Your task to perform on an android device: Open calendar and show me the third week of next month Image 0: 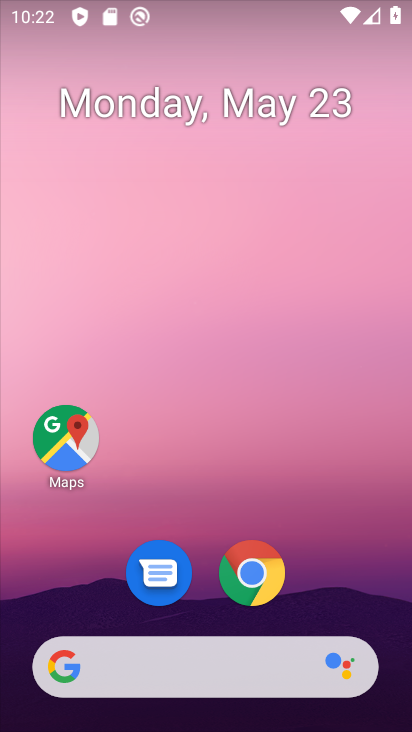
Step 0: drag from (342, 535) to (253, 47)
Your task to perform on an android device: Open calendar and show me the third week of next month Image 1: 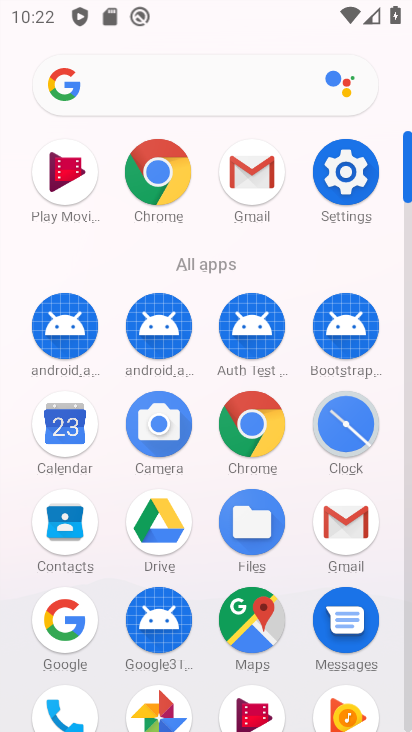
Step 1: drag from (13, 468) to (20, 226)
Your task to perform on an android device: Open calendar and show me the third week of next month Image 2: 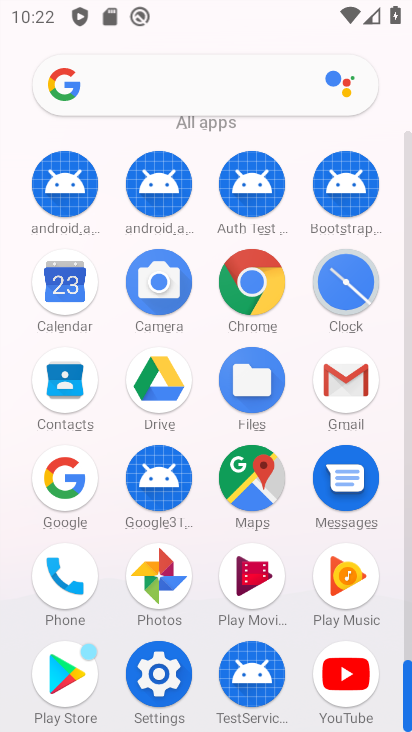
Step 2: drag from (17, 528) to (27, 206)
Your task to perform on an android device: Open calendar and show me the third week of next month Image 3: 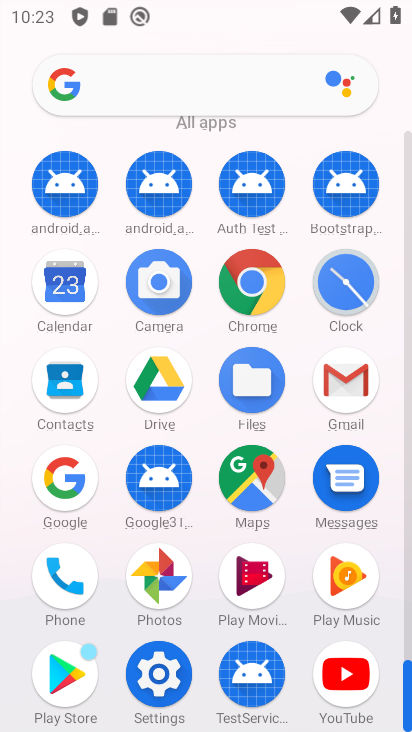
Step 3: click (65, 275)
Your task to perform on an android device: Open calendar and show me the third week of next month Image 4: 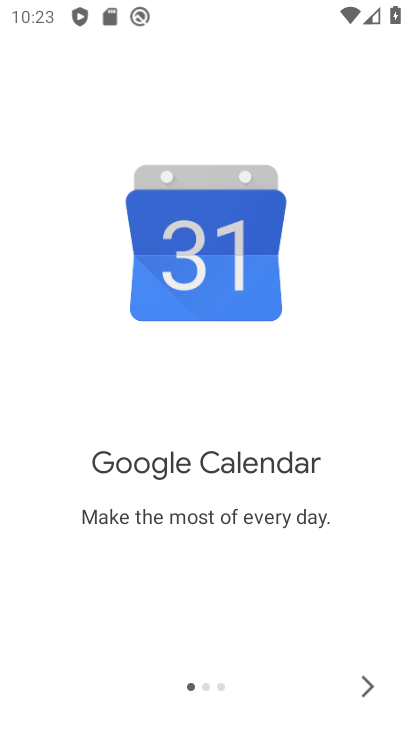
Step 4: click (359, 689)
Your task to perform on an android device: Open calendar and show me the third week of next month Image 5: 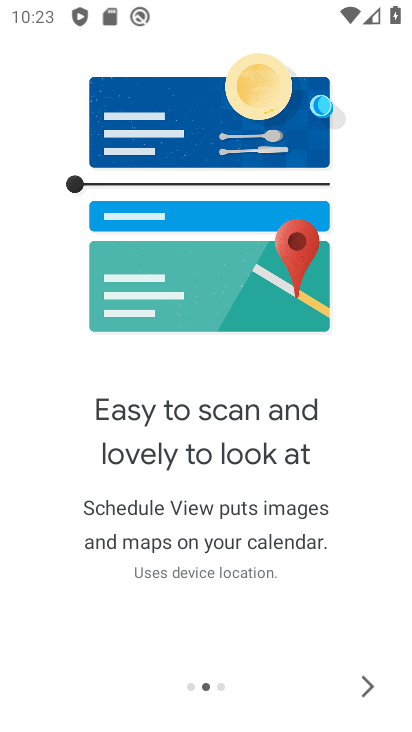
Step 5: click (359, 672)
Your task to perform on an android device: Open calendar and show me the third week of next month Image 6: 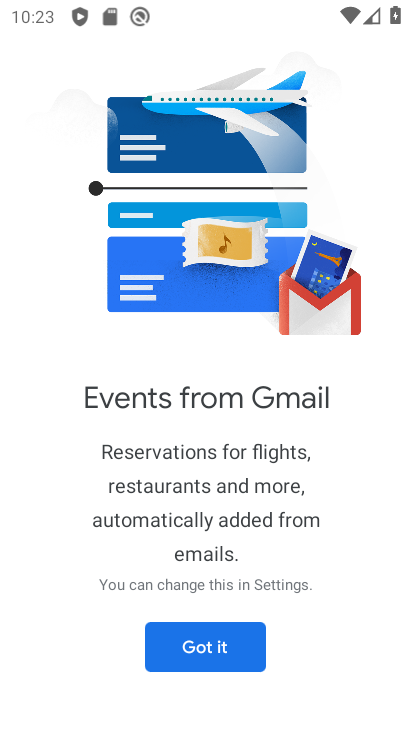
Step 6: click (214, 634)
Your task to perform on an android device: Open calendar and show me the third week of next month Image 7: 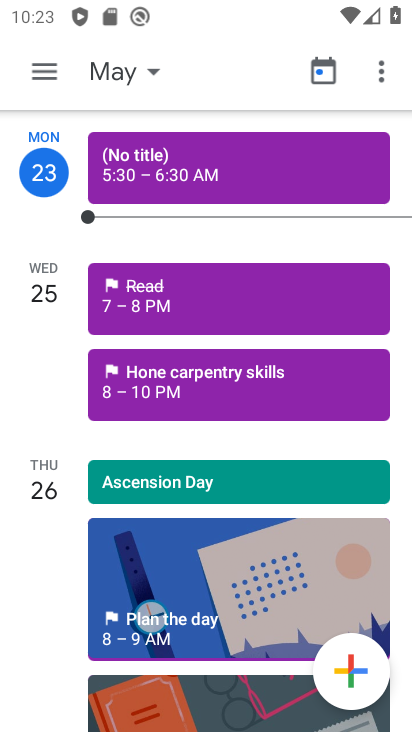
Step 7: click (137, 68)
Your task to perform on an android device: Open calendar and show me the third week of next month Image 8: 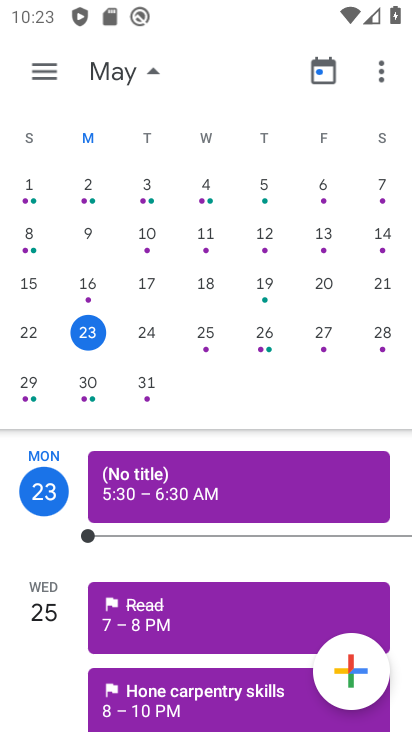
Step 8: drag from (361, 254) to (2, 197)
Your task to perform on an android device: Open calendar and show me the third week of next month Image 9: 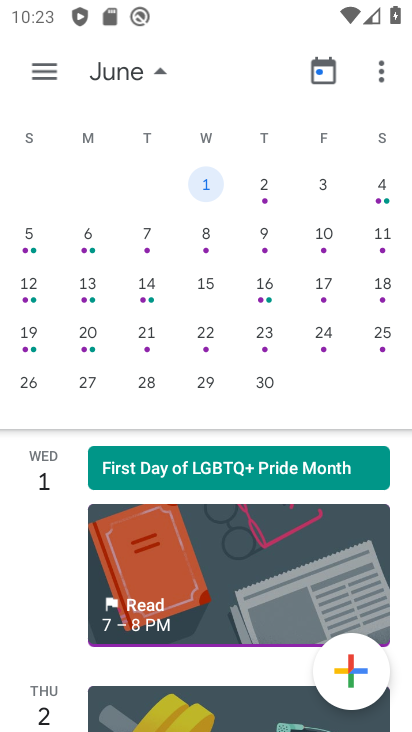
Step 9: click (19, 277)
Your task to perform on an android device: Open calendar and show me the third week of next month Image 10: 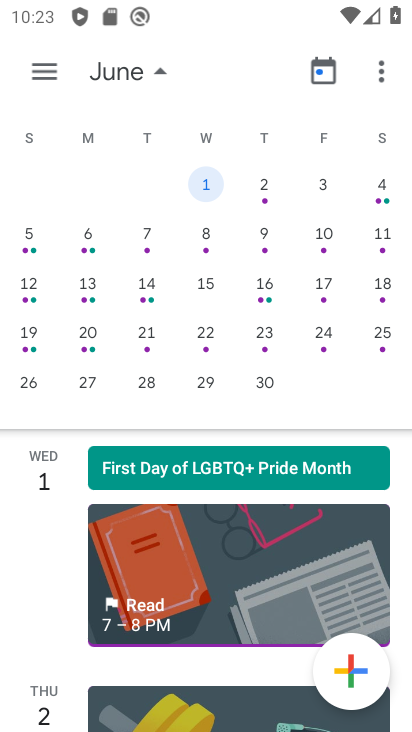
Step 10: click (28, 285)
Your task to perform on an android device: Open calendar and show me the third week of next month Image 11: 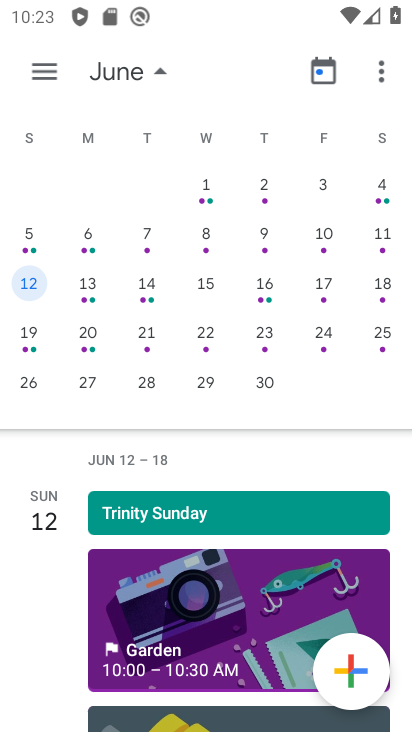
Step 11: click (50, 58)
Your task to perform on an android device: Open calendar and show me the third week of next month Image 12: 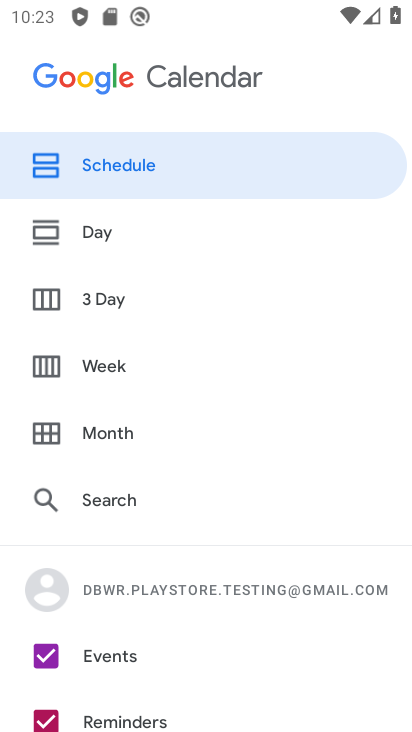
Step 12: click (119, 364)
Your task to perform on an android device: Open calendar and show me the third week of next month Image 13: 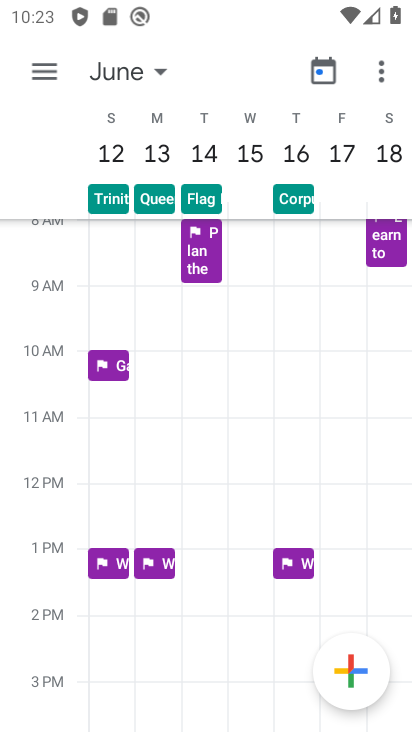
Step 13: task complete